Your task to perform on an android device: Open Chrome and go to settings Image 0: 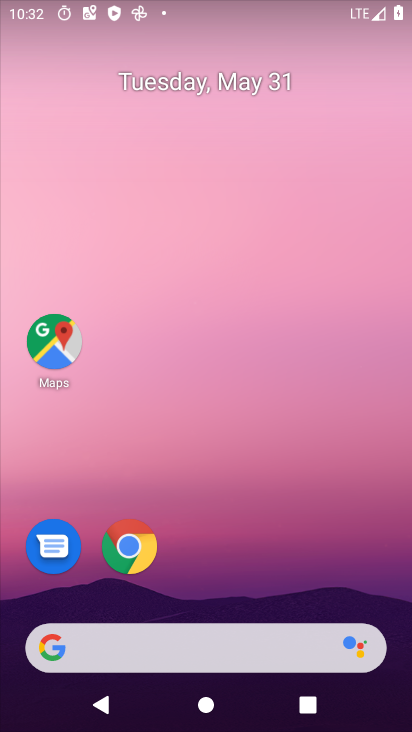
Step 0: drag from (239, 524) to (307, 166)
Your task to perform on an android device: Open Chrome and go to settings Image 1: 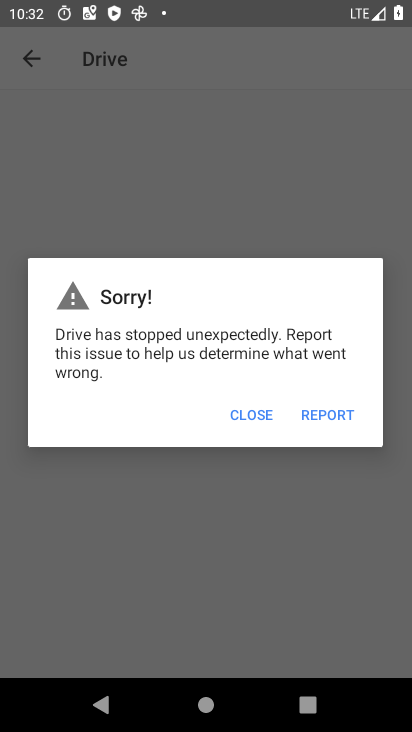
Step 1: press home button
Your task to perform on an android device: Open Chrome and go to settings Image 2: 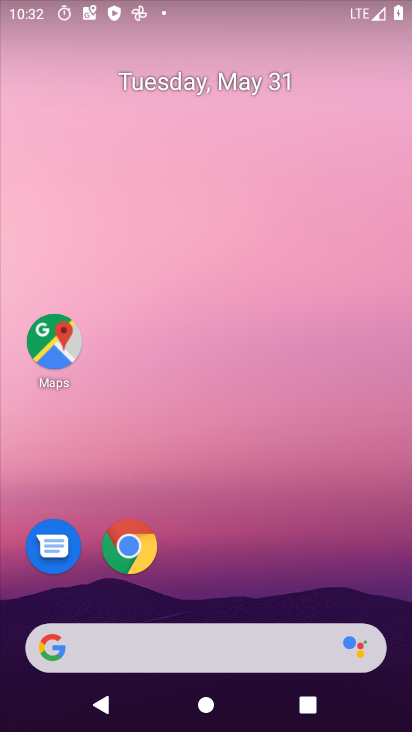
Step 2: click (145, 542)
Your task to perform on an android device: Open Chrome and go to settings Image 3: 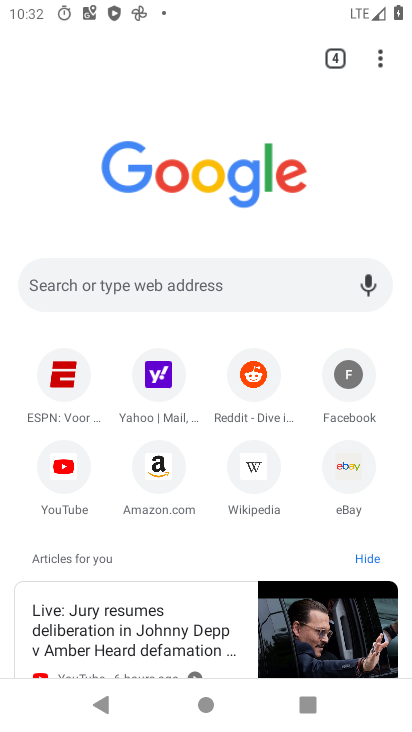
Step 3: click (387, 65)
Your task to perform on an android device: Open Chrome and go to settings Image 4: 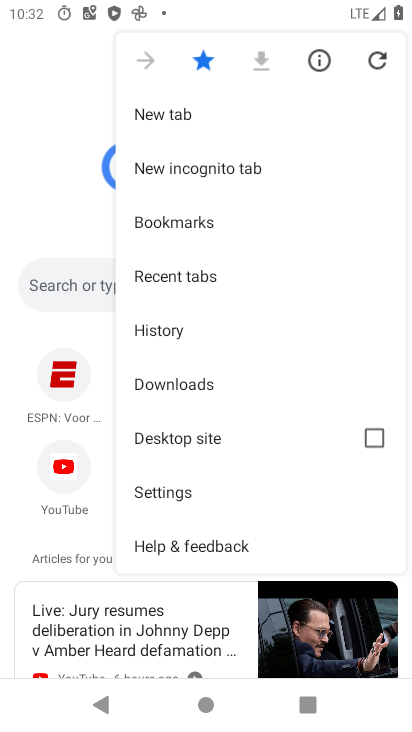
Step 4: click (156, 492)
Your task to perform on an android device: Open Chrome and go to settings Image 5: 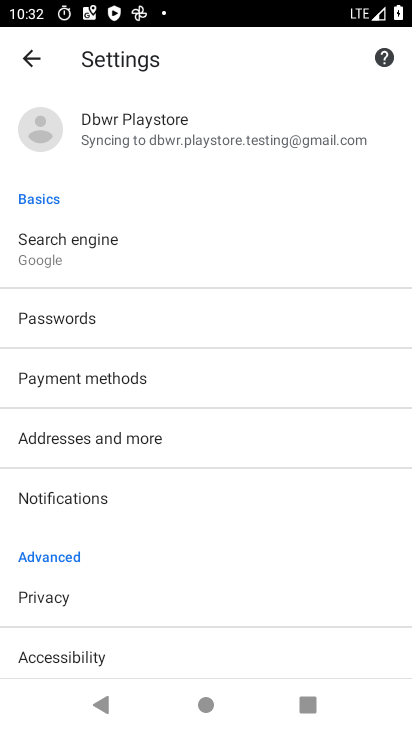
Step 5: task complete